Your task to perform on an android device: Search for sushi restaurants on Maps Image 0: 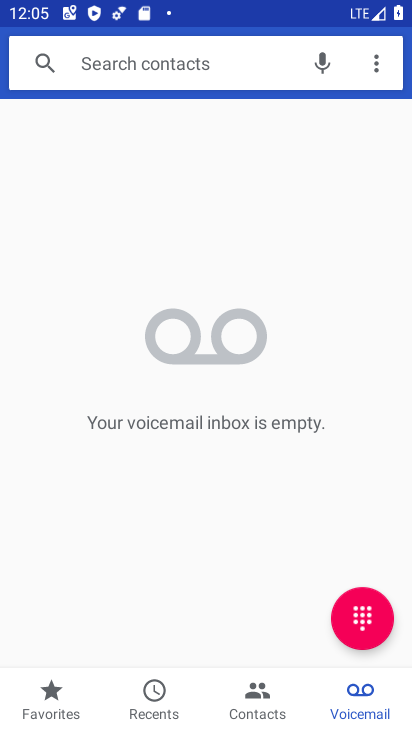
Step 0: press home button
Your task to perform on an android device: Search for sushi restaurants on Maps Image 1: 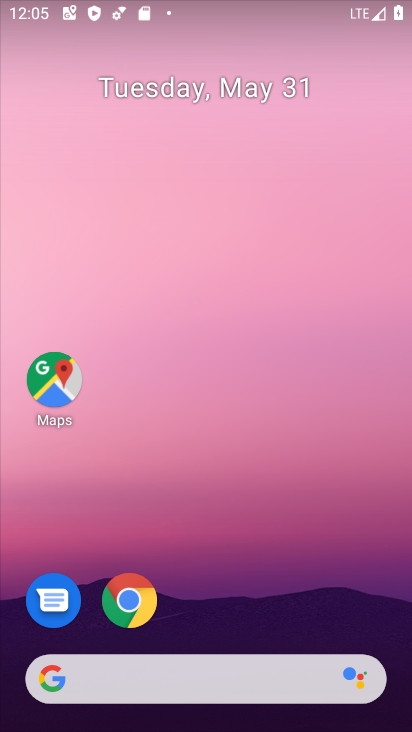
Step 1: drag from (205, 730) to (200, 84)
Your task to perform on an android device: Search for sushi restaurants on Maps Image 2: 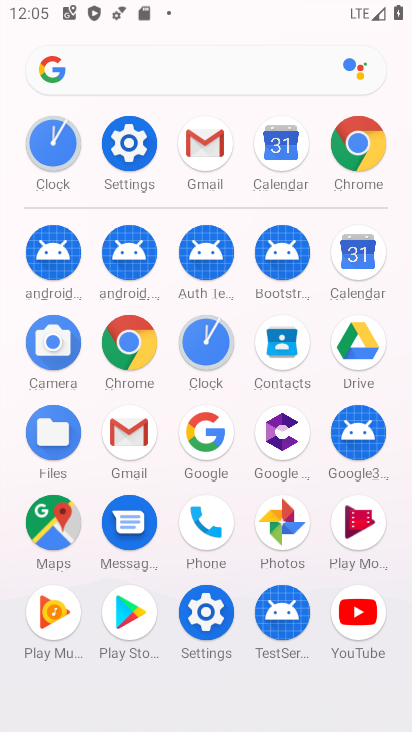
Step 2: click (64, 524)
Your task to perform on an android device: Search for sushi restaurants on Maps Image 3: 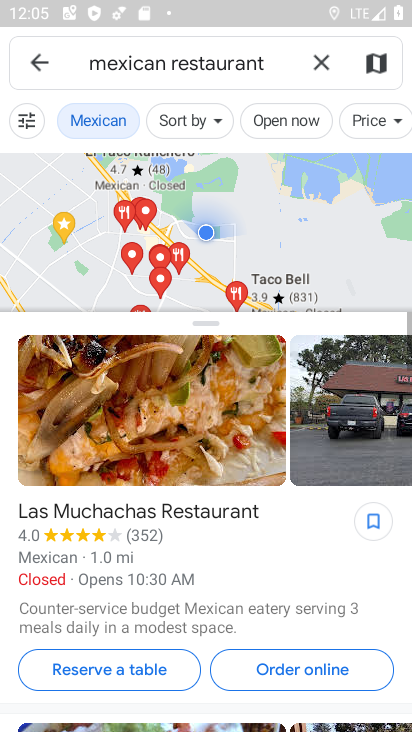
Step 3: click (327, 60)
Your task to perform on an android device: Search for sushi restaurants on Maps Image 4: 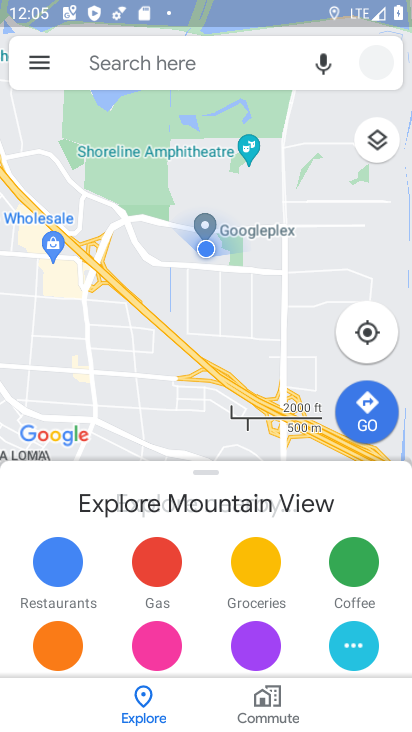
Step 4: click (187, 69)
Your task to perform on an android device: Search for sushi restaurants on Maps Image 5: 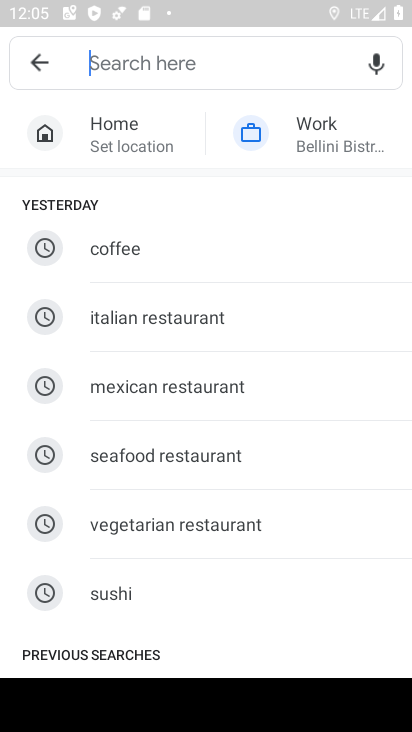
Step 5: type "sushi restaurants"
Your task to perform on an android device: Search for sushi restaurants on Maps Image 6: 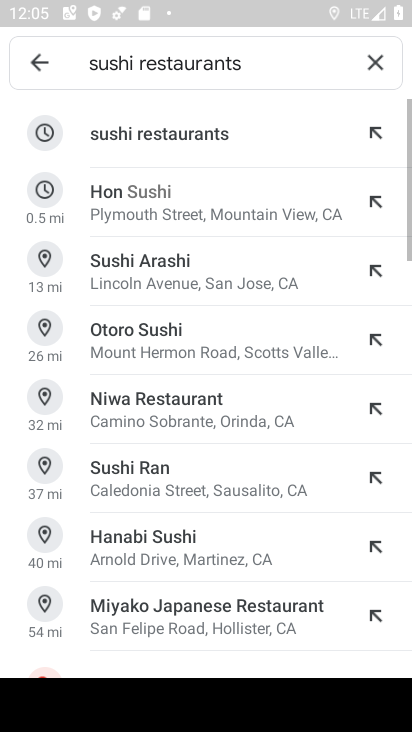
Step 6: click (136, 137)
Your task to perform on an android device: Search for sushi restaurants on Maps Image 7: 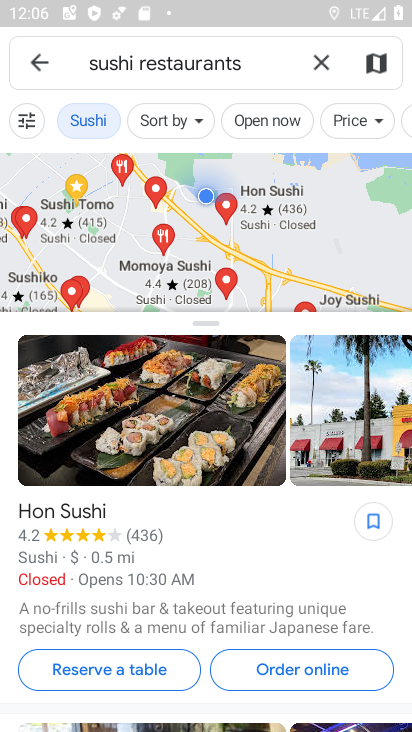
Step 7: task complete